Your task to perform on an android device: Open the web browser Image 0: 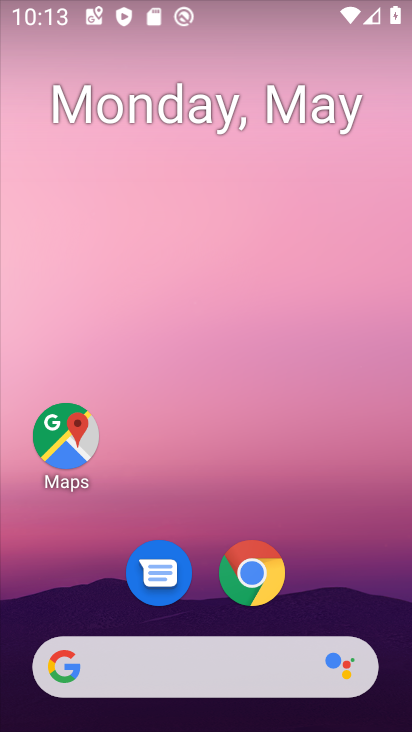
Step 0: click (256, 577)
Your task to perform on an android device: Open the web browser Image 1: 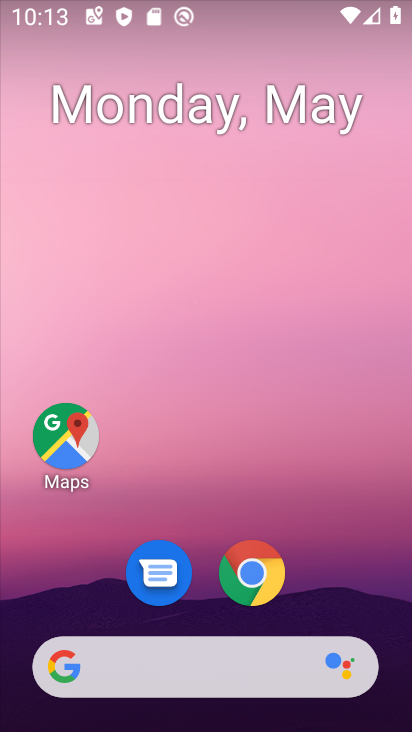
Step 1: click (256, 577)
Your task to perform on an android device: Open the web browser Image 2: 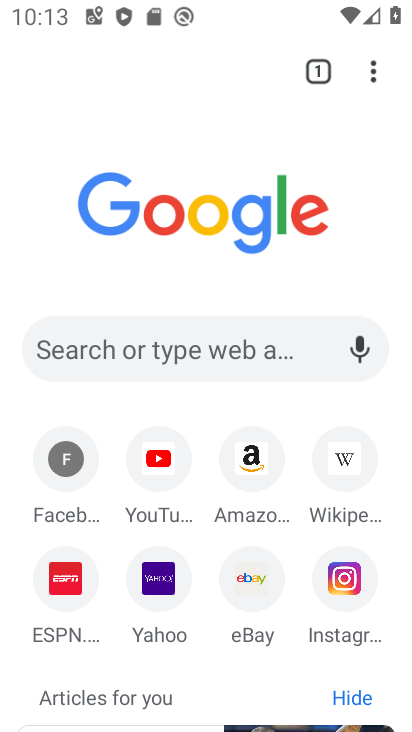
Step 2: task complete